Your task to perform on an android device: create a new album in the google photos Image 0: 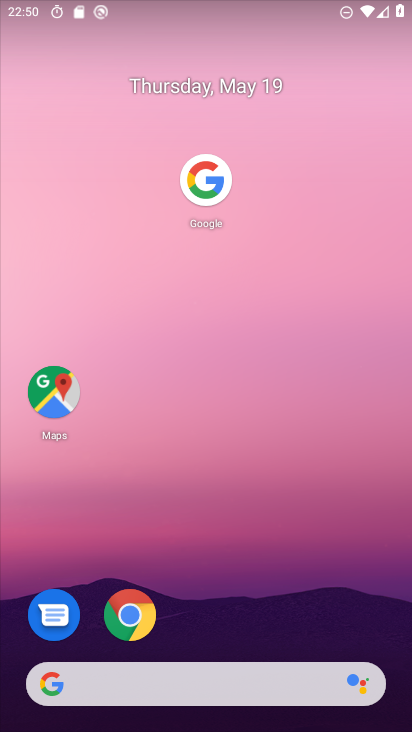
Step 0: drag from (254, 586) to (246, 100)
Your task to perform on an android device: create a new album in the google photos Image 1: 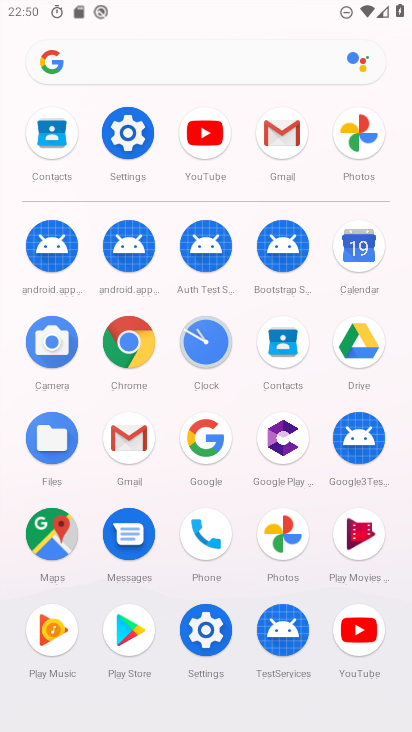
Step 1: click (286, 530)
Your task to perform on an android device: create a new album in the google photos Image 2: 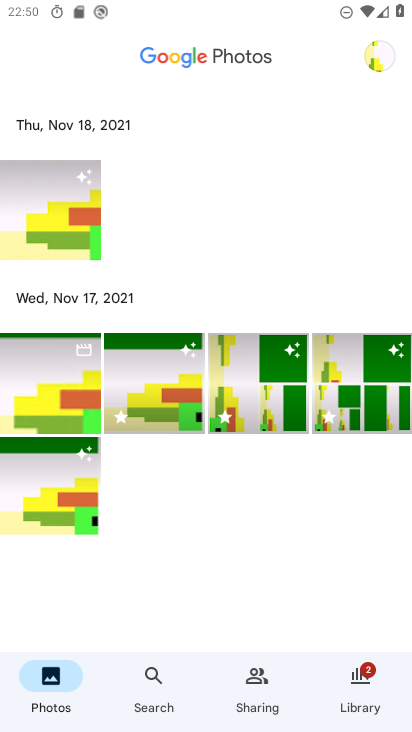
Step 2: click (364, 693)
Your task to perform on an android device: create a new album in the google photos Image 3: 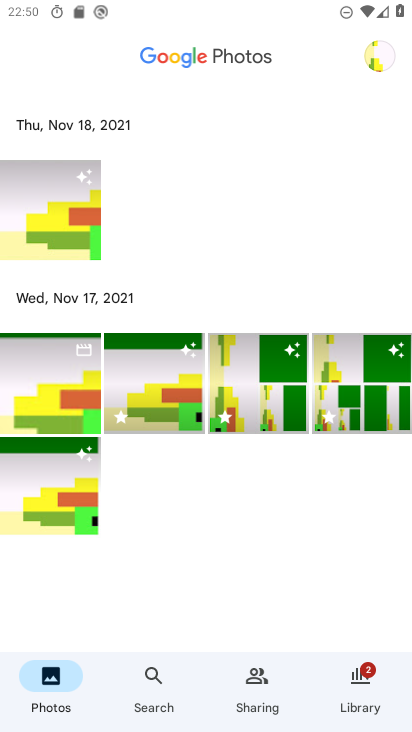
Step 3: click (358, 684)
Your task to perform on an android device: create a new album in the google photos Image 4: 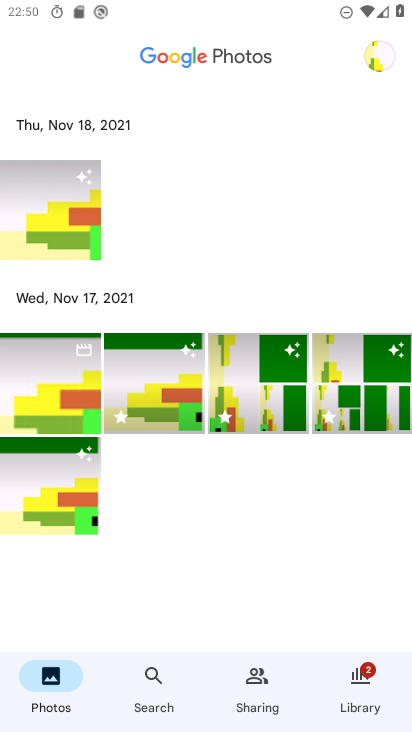
Step 4: drag from (260, 525) to (235, 291)
Your task to perform on an android device: create a new album in the google photos Image 5: 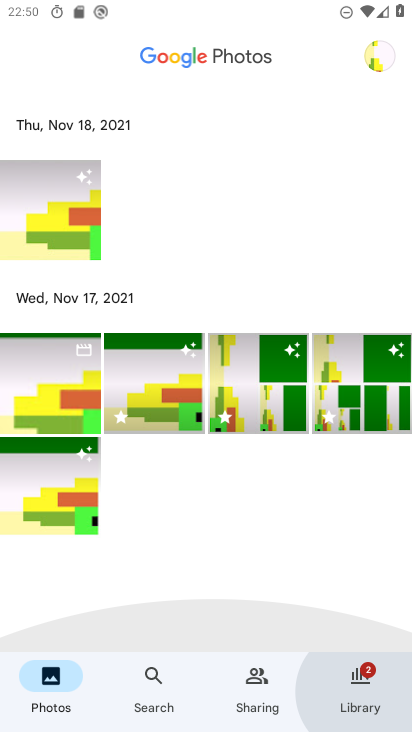
Step 5: click (255, 522)
Your task to perform on an android device: create a new album in the google photos Image 6: 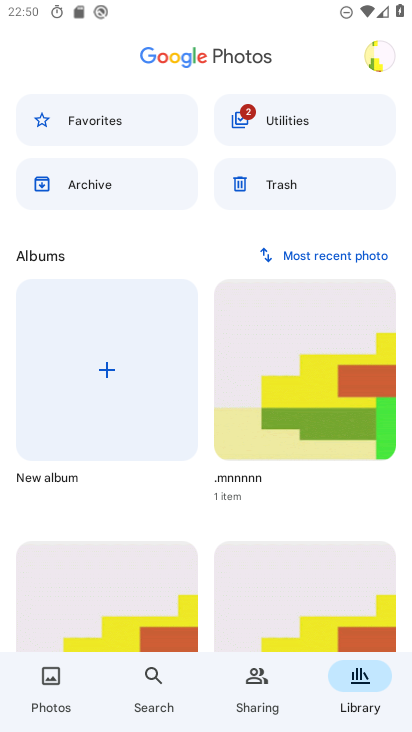
Step 6: click (88, 410)
Your task to perform on an android device: create a new album in the google photos Image 7: 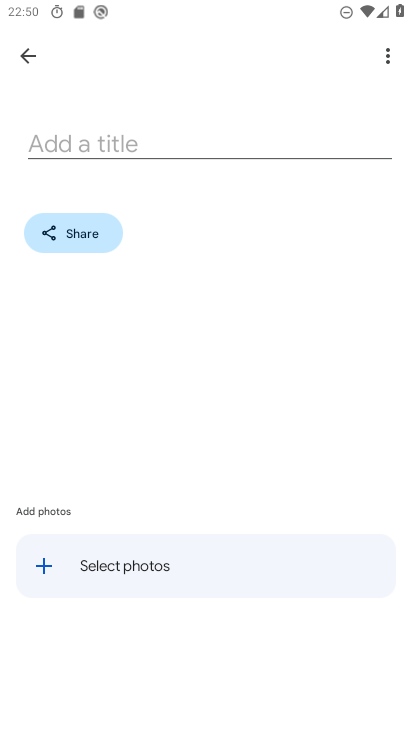
Step 7: click (166, 134)
Your task to perform on an android device: create a new album in the google photos Image 8: 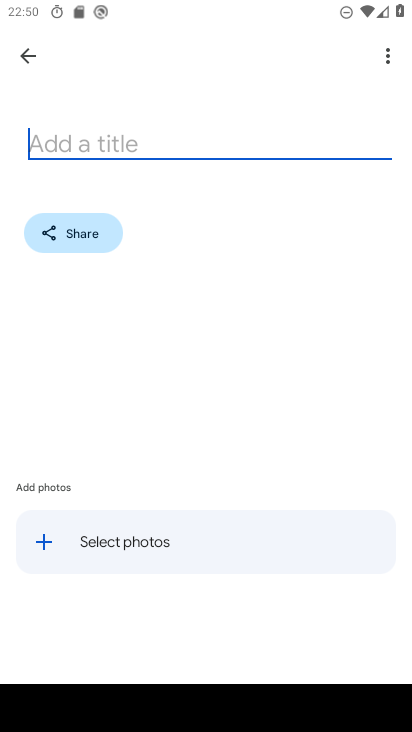
Step 8: type "tuggh"
Your task to perform on an android device: create a new album in the google photos Image 9: 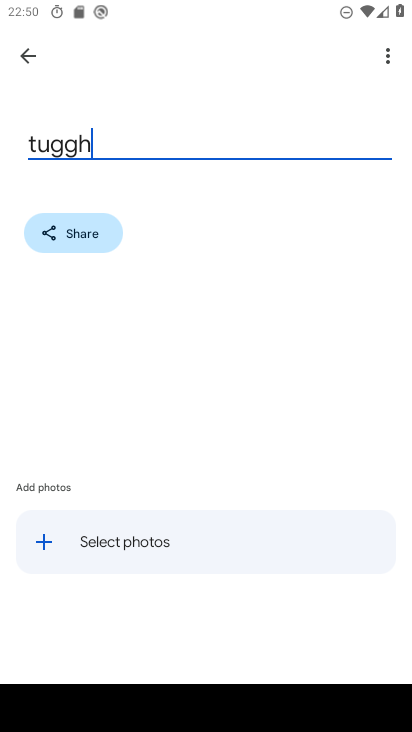
Step 9: click (42, 537)
Your task to perform on an android device: create a new album in the google photos Image 10: 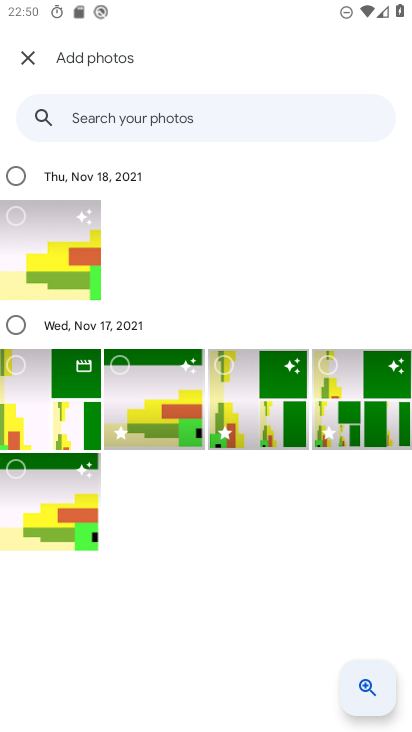
Step 10: click (30, 371)
Your task to perform on an android device: create a new album in the google photos Image 11: 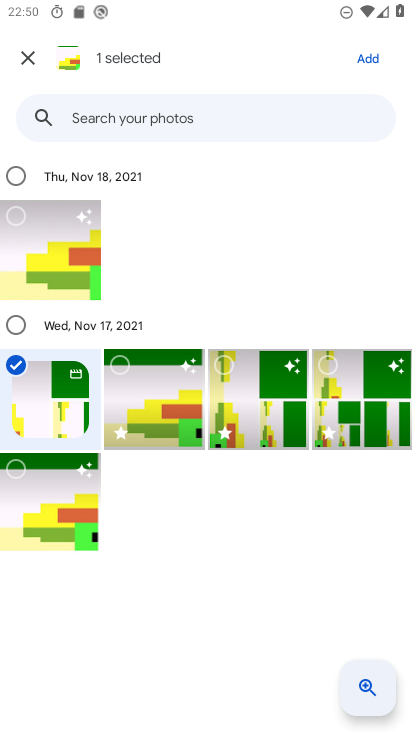
Step 11: click (355, 48)
Your task to perform on an android device: create a new album in the google photos Image 12: 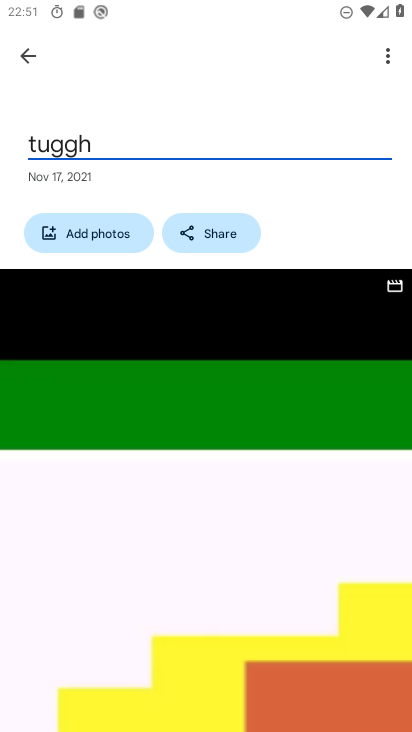
Step 12: task complete